Your task to perform on an android device: Open privacy settings Image 0: 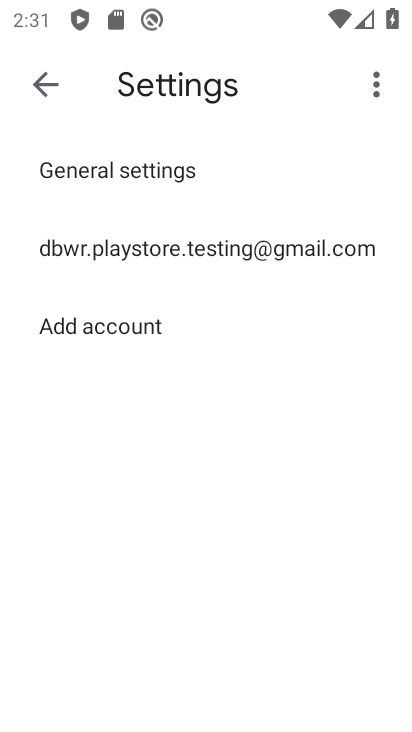
Step 0: press home button
Your task to perform on an android device: Open privacy settings Image 1: 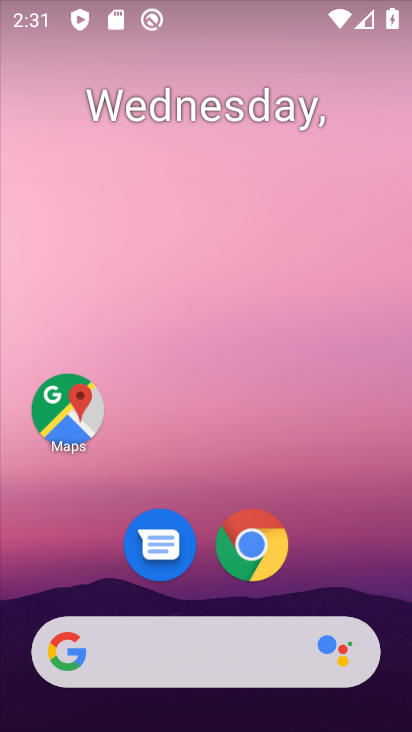
Step 1: drag from (155, 660) to (272, 113)
Your task to perform on an android device: Open privacy settings Image 2: 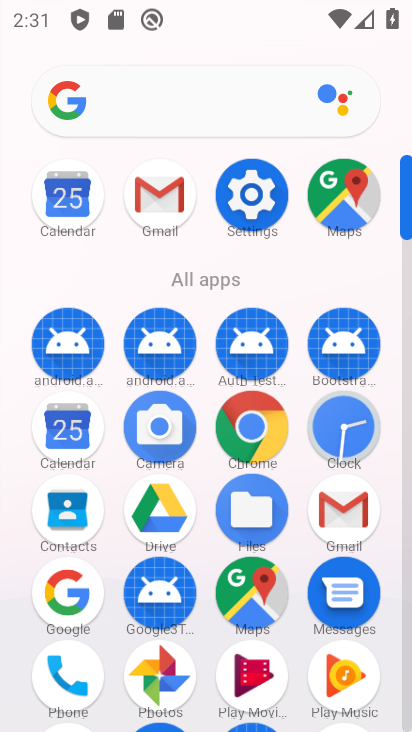
Step 2: click (243, 205)
Your task to perform on an android device: Open privacy settings Image 3: 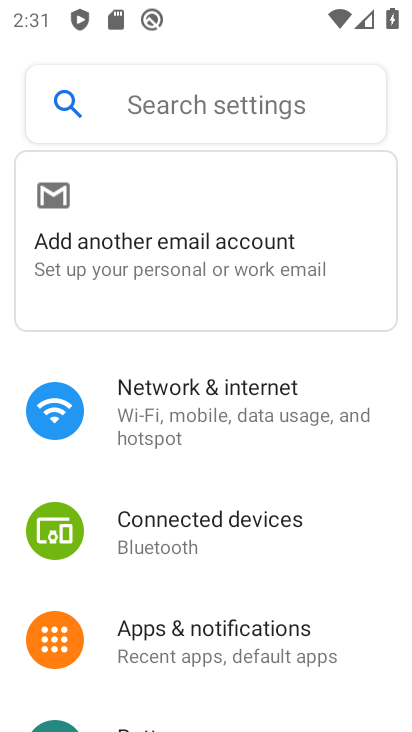
Step 3: drag from (202, 656) to (321, 168)
Your task to perform on an android device: Open privacy settings Image 4: 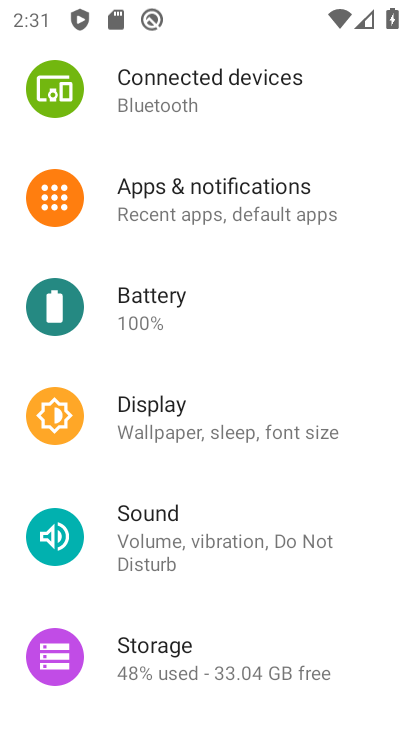
Step 4: drag from (198, 650) to (266, 226)
Your task to perform on an android device: Open privacy settings Image 5: 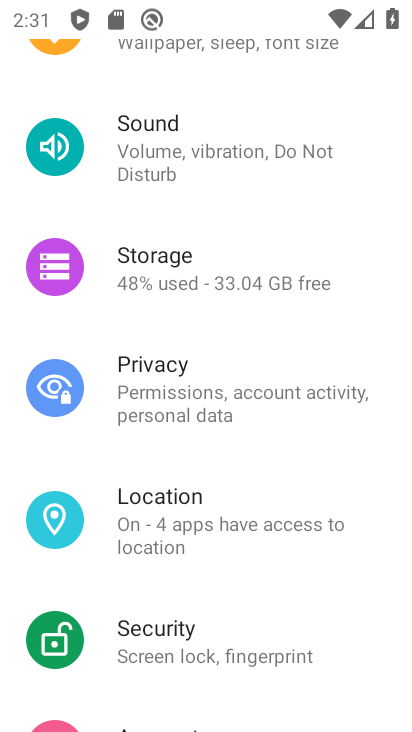
Step 5: click (162, 388)
Your task to perform on an android device: Open privacy settings Image 6: 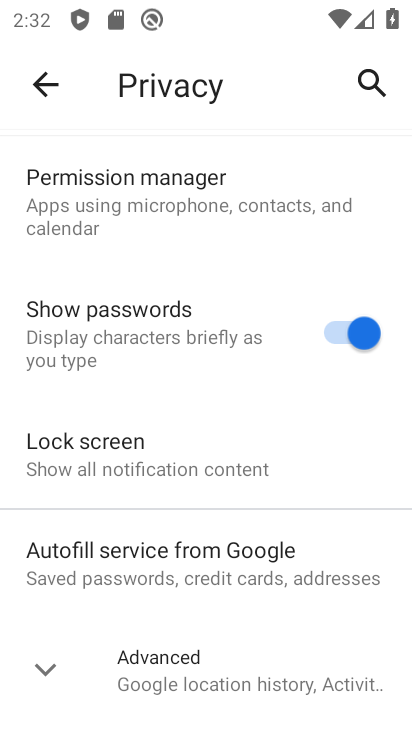
Step 6: task complete